Your task to perform on an android device: turn off airplane mode Image 0: 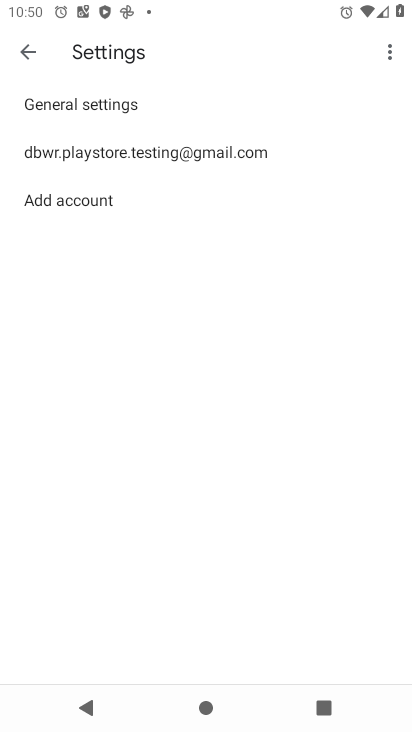
Step 0: press home button
Your task to perform on an android device: turn off airplane mode Image 1: 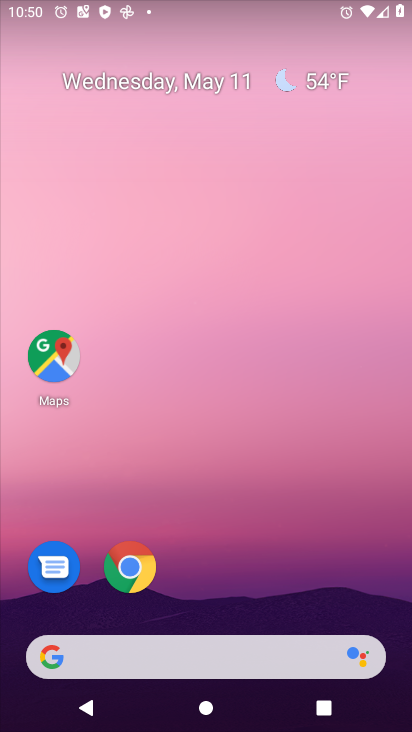
Step 1: drag from (237, 592) to (323, 4)
Your task to perform on an android device: turn off airplane mode Image 2: 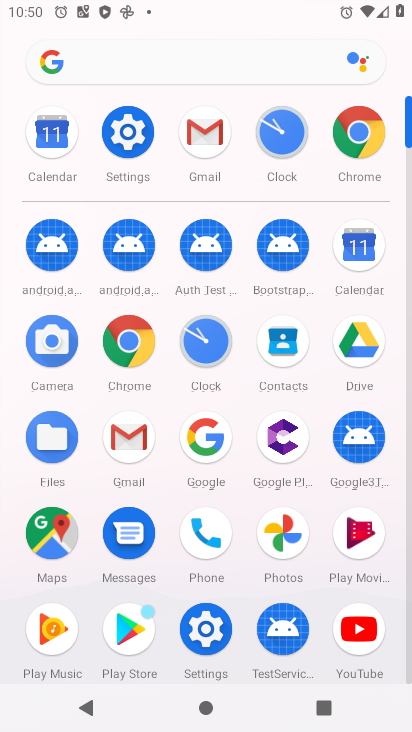
Step 2: click (127, 152)
Your task to perform on an android device: turn off airplane mode Image 3: 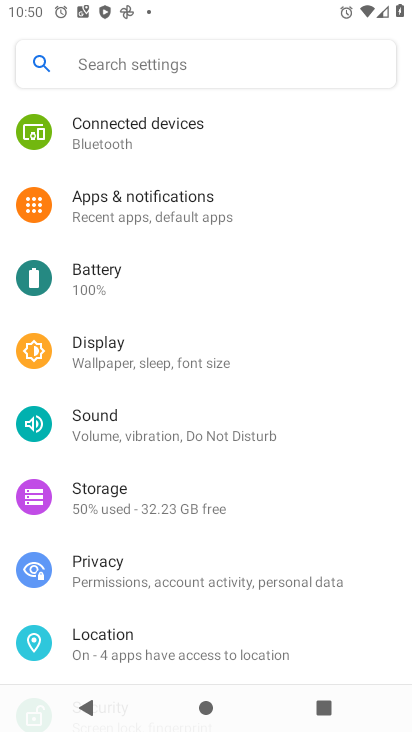
Step 3: drag from (165, 228) to (173, 496)
Your task to perform on an android device: turn off airplane mode Image 4: 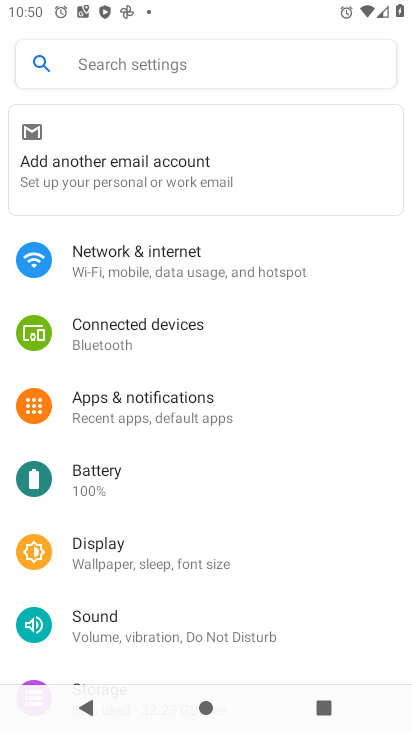
Step 4: click (167, 277)
Your task to perform on an android device: turn off airplane mode Image 5: 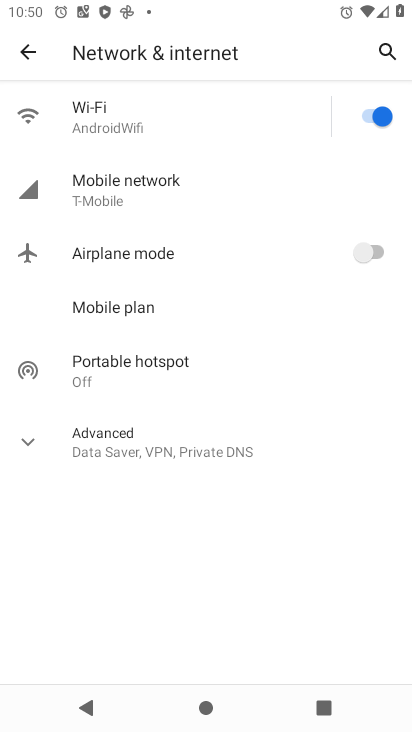
Step 5: task complete